Your task to perform on an android device: check data usage Image 0: 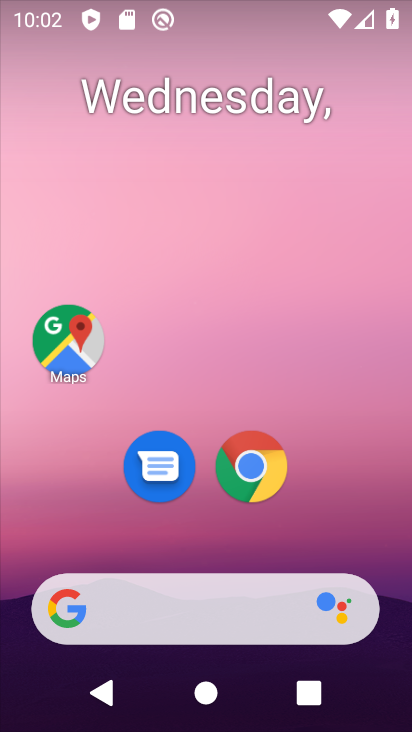
Step 0: drag from (223, 710) to (215, 223)
Your task to perform on an android device: check data usage Image 1: 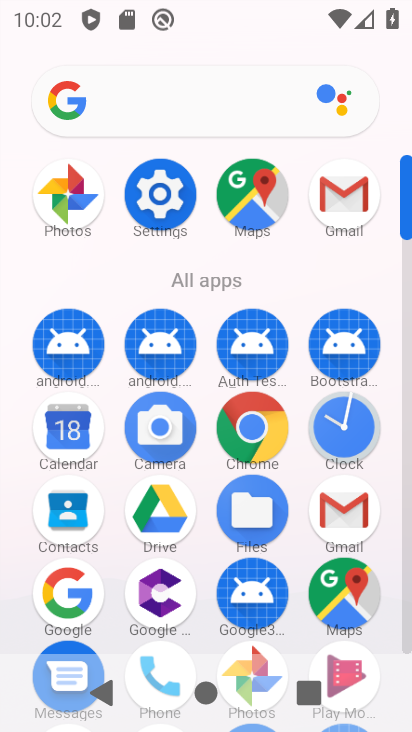
Step 1: click (165, 210)
Your task to perform on an android device: check data usage Image 2: 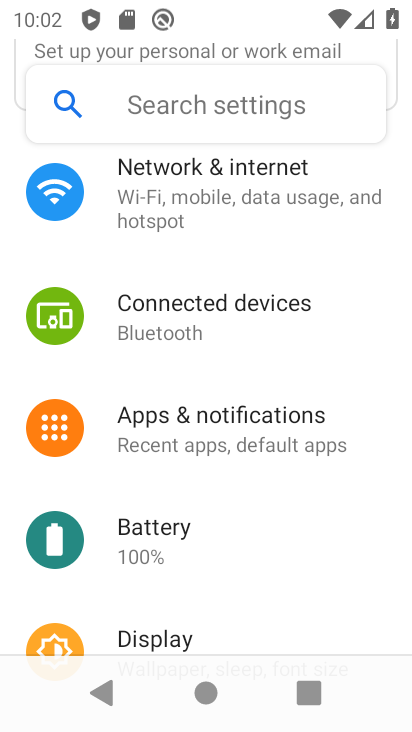
Step 2: drag from (183, 217) to (200, 435)
Your task to perform on an android device: check data usage Image 3: 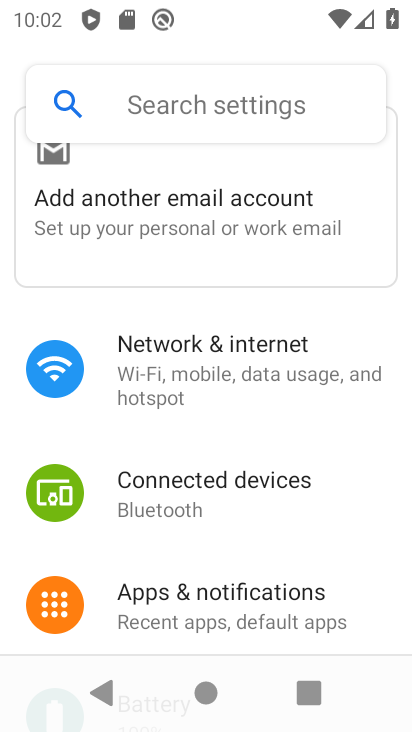
Step 3: click (142, 372)
Your task to perform on an android device: check data usage Image 4: 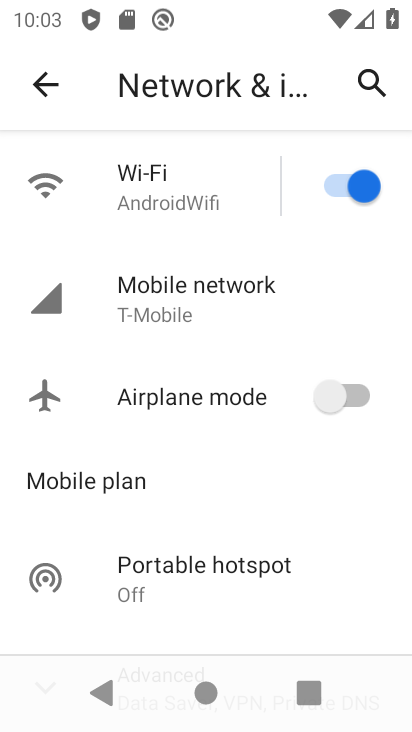
Step 4: drag from (158, 516) to (159, 286)
Your task to perform on an android device: check data usage Image 5: 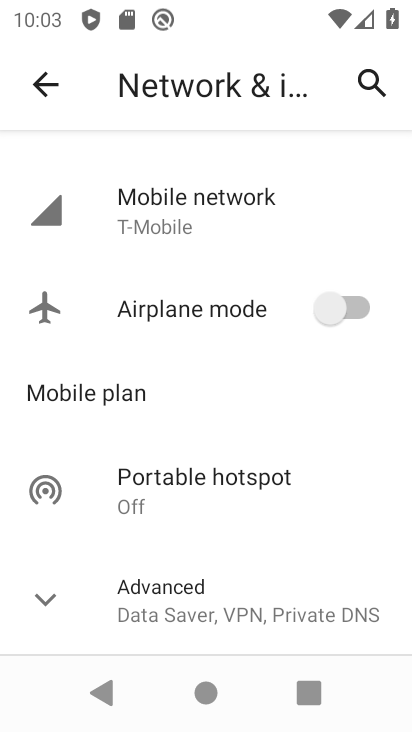
Step 5: drag from (154, 299) to (166, 493)
Your task to perform on an android device: check data usage Image 6: 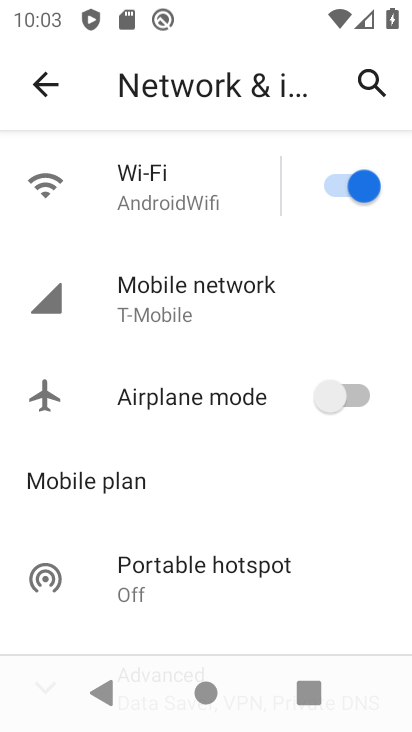
Step 6: click (145, 309)
Your task to perform on an android device: check data usage Image 7: 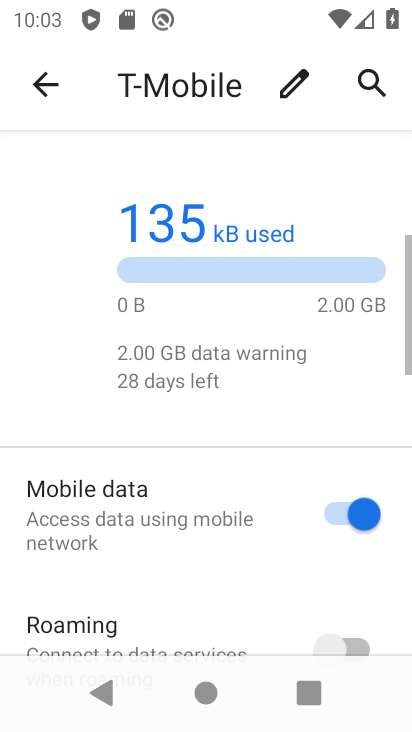
Step 7: drag from (164, 623) to (168, 320)
Your task to perform on an android device: check data usage Image 8: 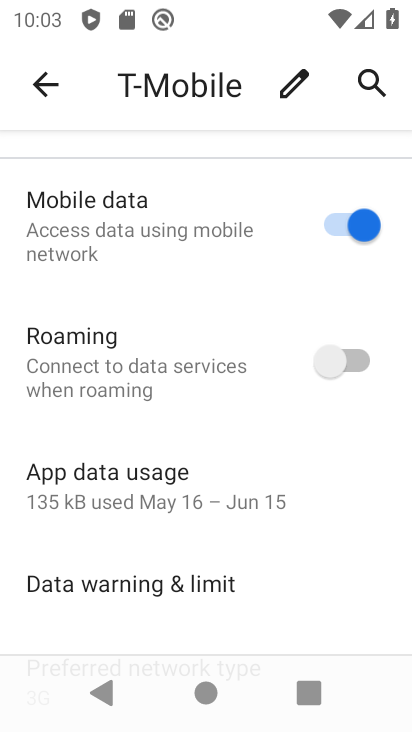
Step 8: click (100, 482)
Your task to perform on an android device: check data usage Image 9: 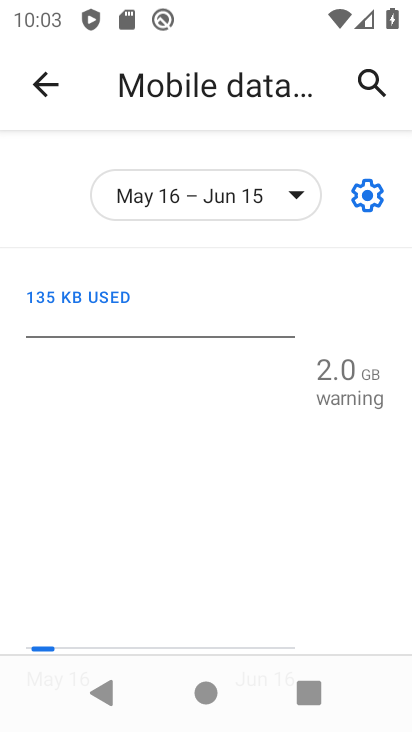
Step 9: task complete